Your task to perform on an android device: Is it going to rain today? Image 0: 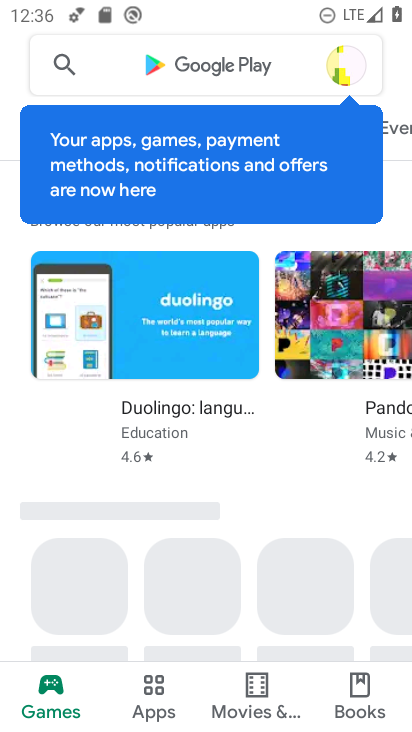
Step 0: press home button
Your task to perform on an android device: Is it going to rain today? Image 1: 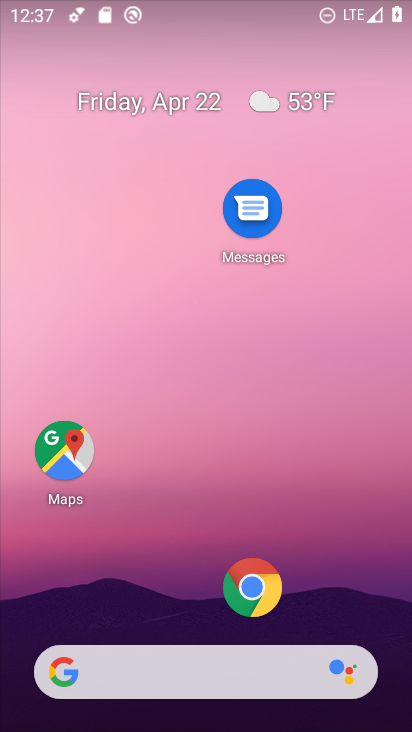
Step 1: drag from (196, 595) to (240, 167)
Your task to perform on an android device: Is it going to rain today? Image 2: 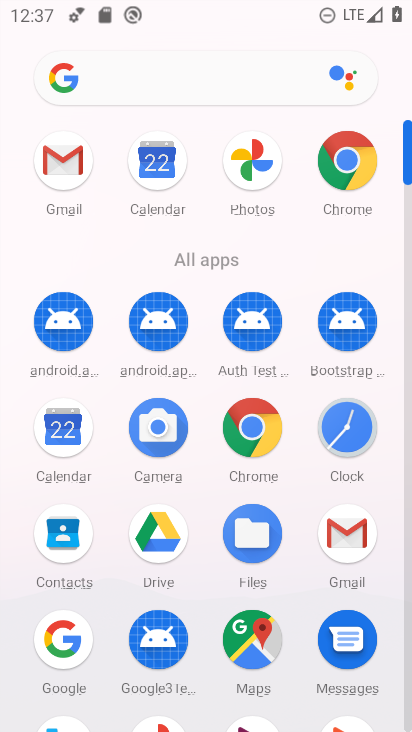
Step 2: click (343, 166)
Your task to perform on an android device: Is it going to rain today? Image 3: 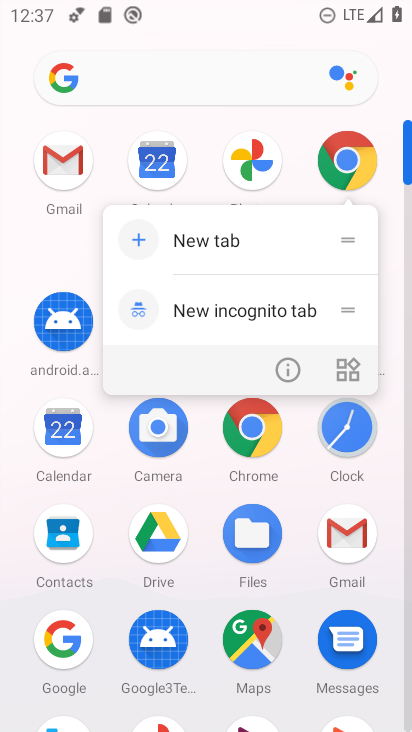
Step 3: click (279, 369)
Your task to perform on an android device: Is it going to rain today? Image 4: 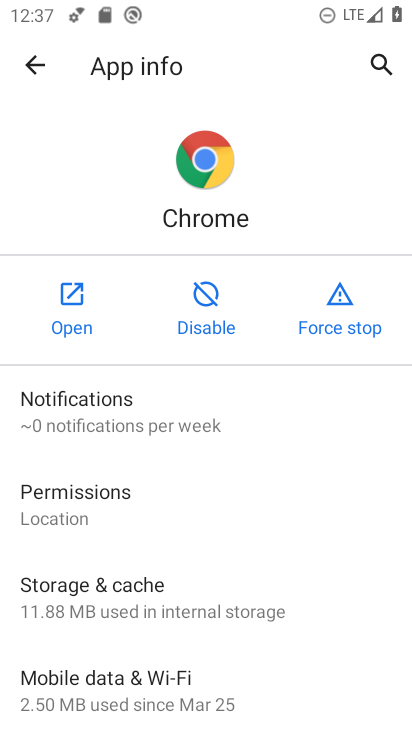
Step 4: click (90, 317)
Your task to perform on an android device: Is it going to rain today? Image 5: 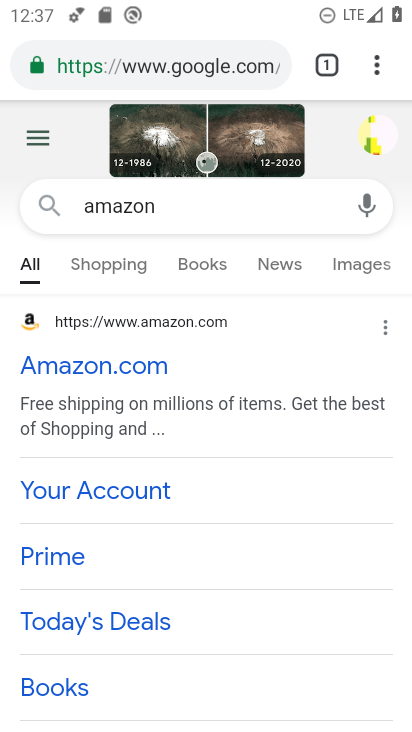
Step 5: click (184, 212)
Your task to perform on an android device: Is it going to rain today? Image 6: 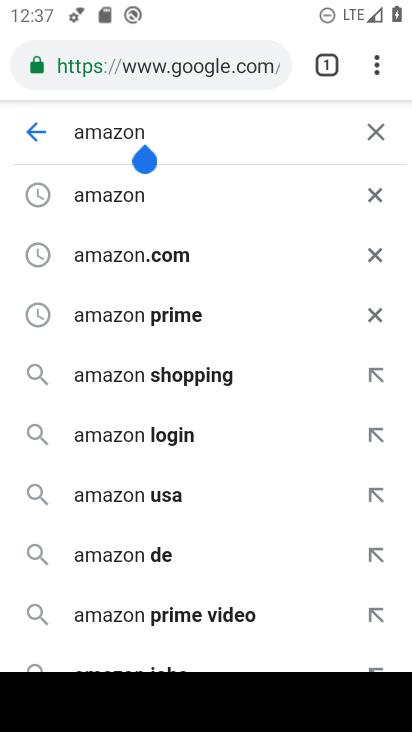
Step 6: click (385, 133)
Your task to perform on an android device: Is it going to rain today? Image 7: 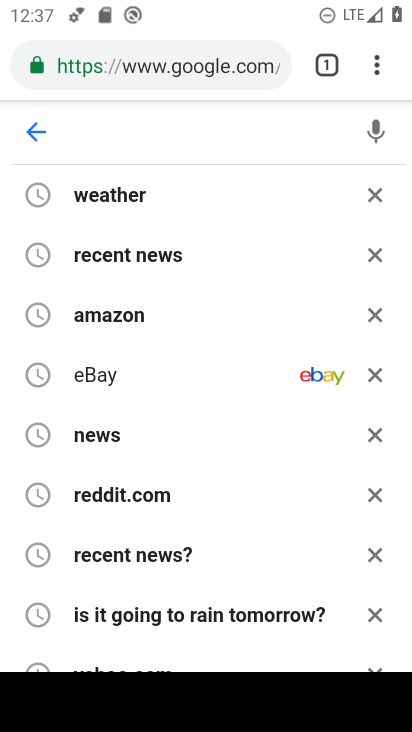
Step 7: type "is it going to rain today?"
Your task to perform on an android device: Is it going to rain today? Image 8: 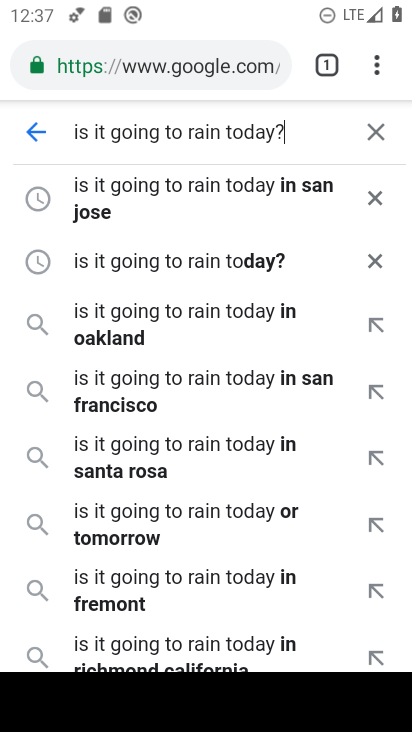
Step 8: click (185, 274)
Your task to perform on an android device: Is it going to rain today? Image 9: 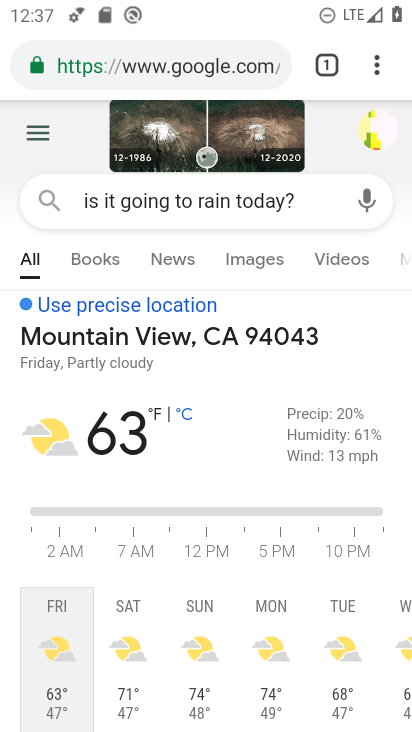
Step 9: task complete